Your task to perform on an android device: snooze an email in the gmail app Image 0: 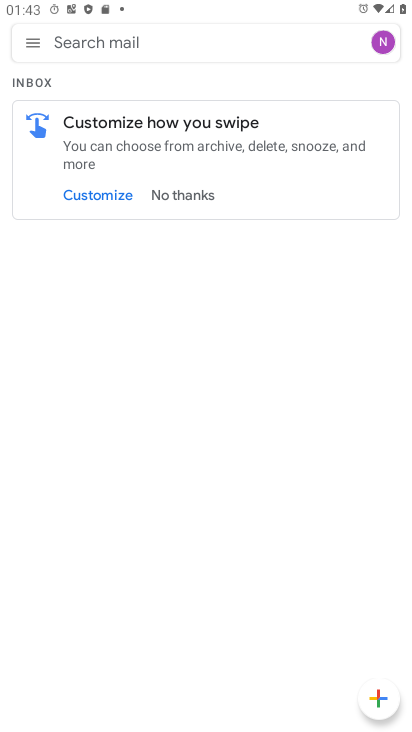
Step 0: press home button
Your task to perform on an android device: snooze an email in the gmail app Image 1: 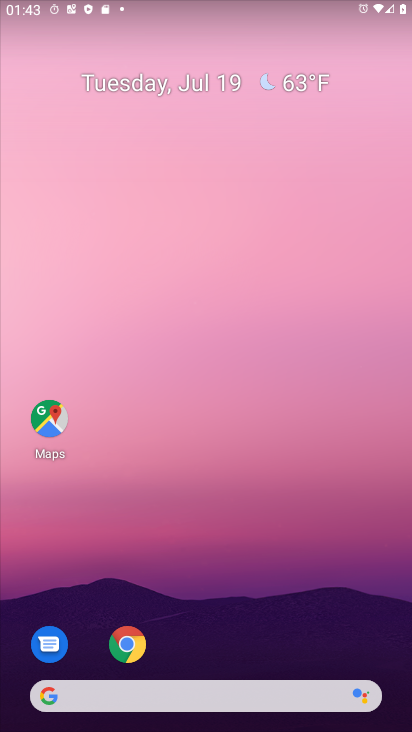
Step 1: drag from (217, 728) to (215, 239)
Your task to perform on an android device: snooze an email in the gmail app Image 2: 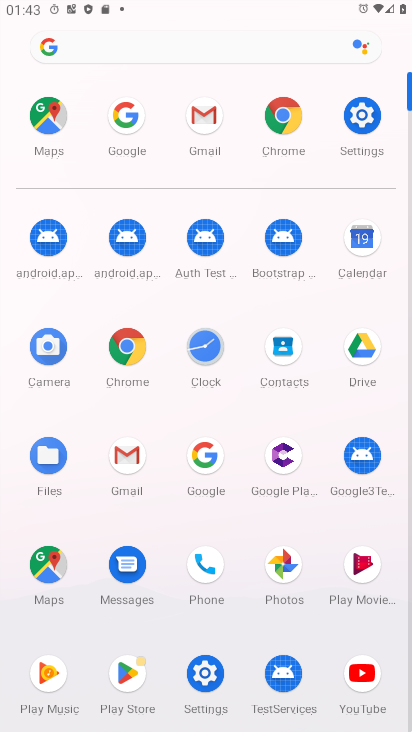
Step 2: click (123, 448)
Your task to perform on an android device: snooze an email in the gmail app Image 3: 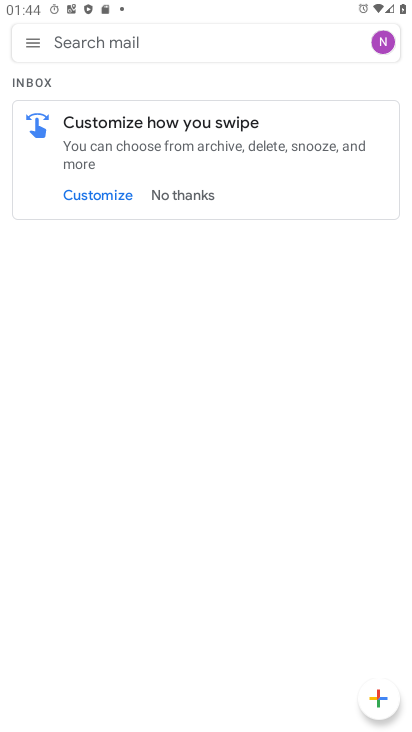
Step 3: task complete